Your task to perform on an android device: turn notification dots on Image 0: 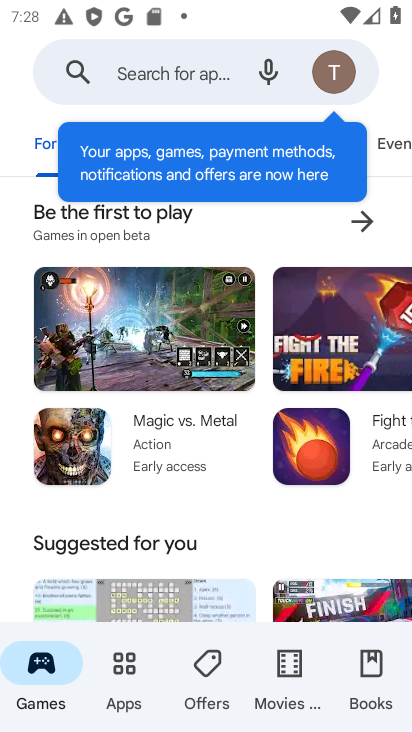
Step 0: press home button
Your task to perform on an android device: turn notification dots on Image 1: 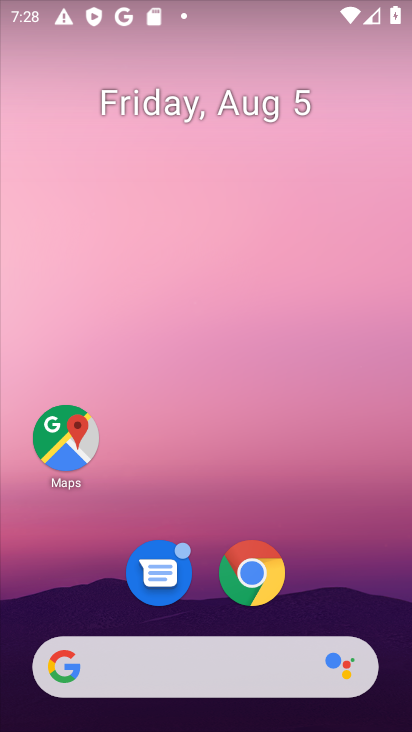
Step 1: drag from (297, 549) to (281, 81)
Your task to perform on an android device: turn notification dots on Image 2: 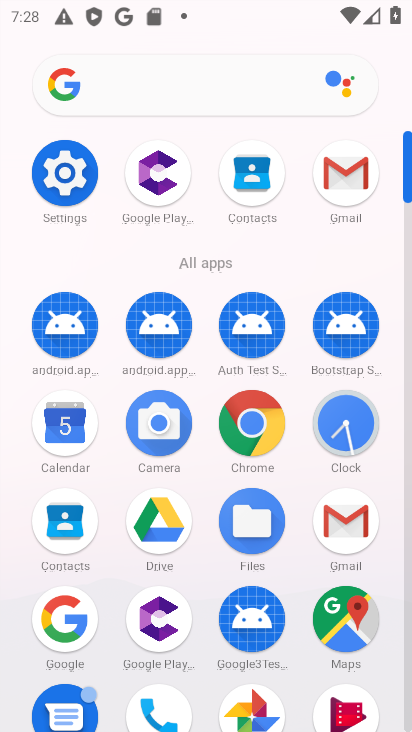
Step 2: click (72, 160)
Your task to perform on an android device: turn notification dots on Image 3: 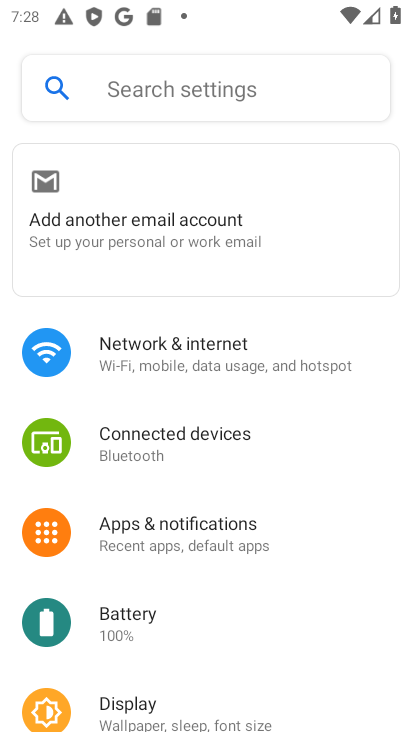
Step 3: click (227, 532)
Your task to perform on an android device: turn notification dots on Image 4: 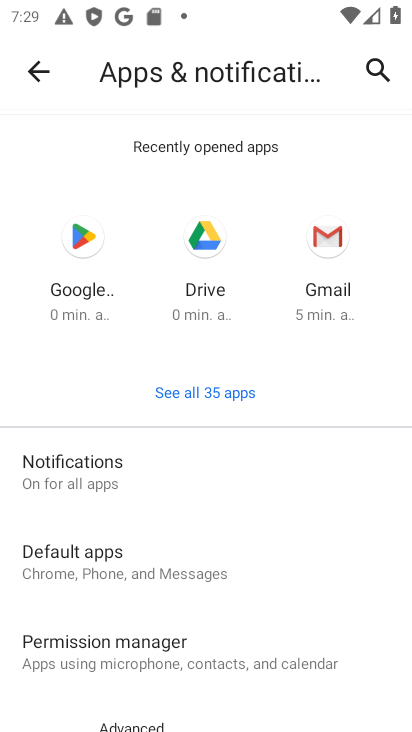
Step 4: click (132, 466)
Your task to perform on an android device: turn notification dots on Image 5: 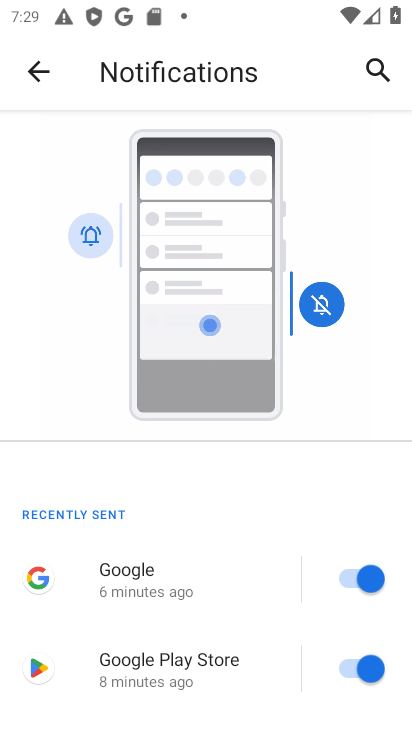
Step 5: drag from (226, 569) to (201, 120)
Your task to perform on an android device: turn notification dots on Image 6: 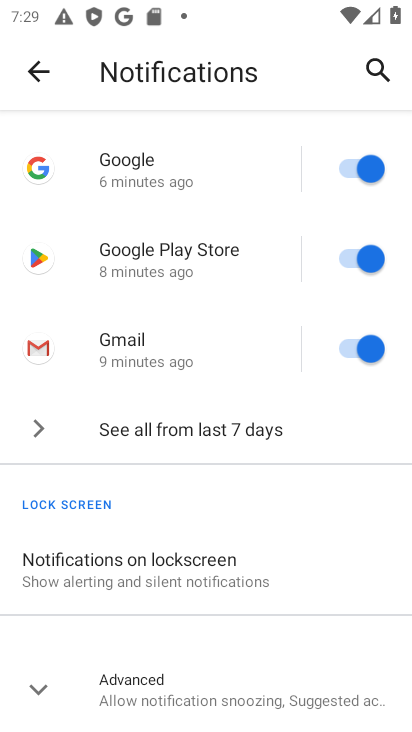
Step 6: click (40, 680)
Your task to perform on an android device: turn notification dots on Image 7: 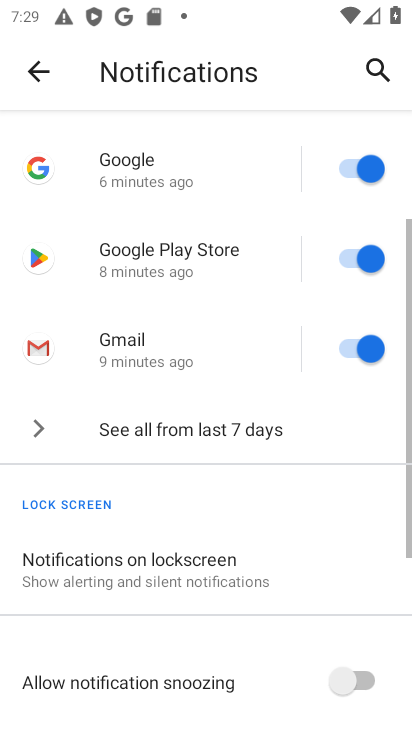
Step 7: task complete